Your task to perform on an android device: Show me the alarms in the clock app Image 0: 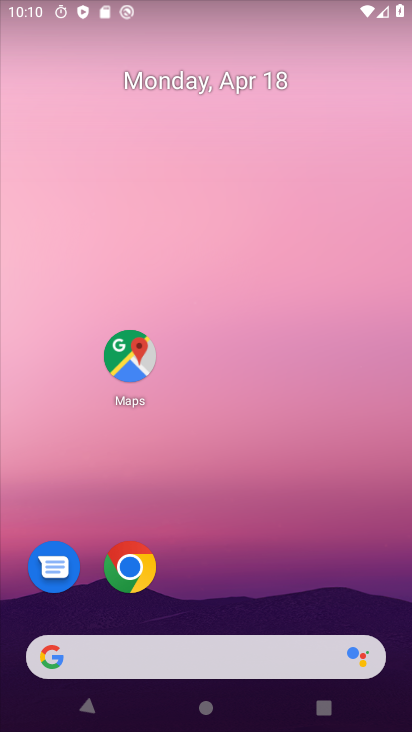
Step 0: drag from (239, 655) to (394, 278)
Your task to perform on an android device: Show me the alarms in the clock app Image 1: 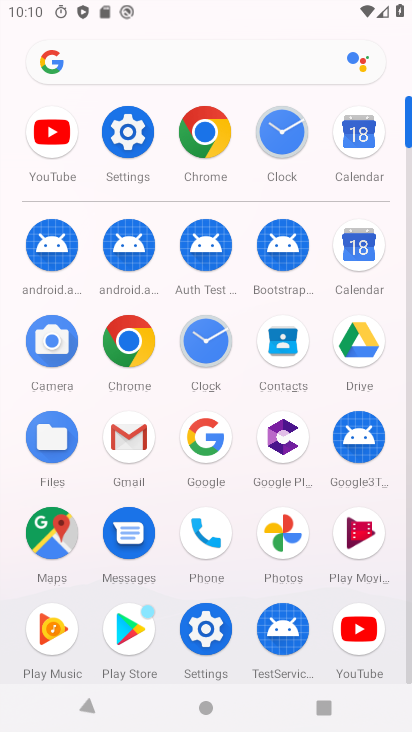
Step 1: click (209, 335)
Your task to perform on an android device: Show me the alarms in the clock app Image 2: 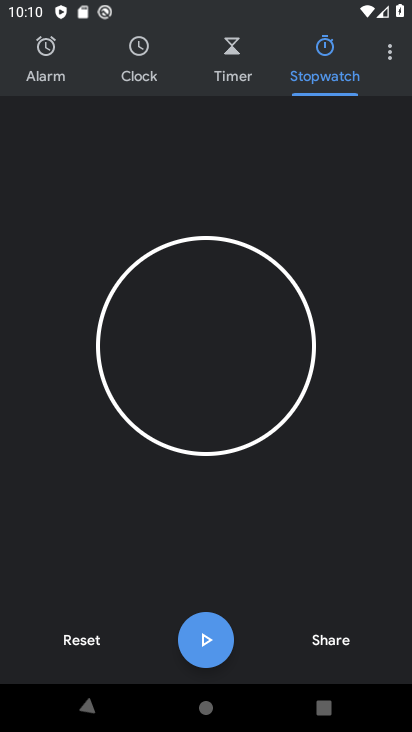
Step 2: click (49, 81)
Your task to perform on an android device: Show me the alarms in the clock app Image 3: 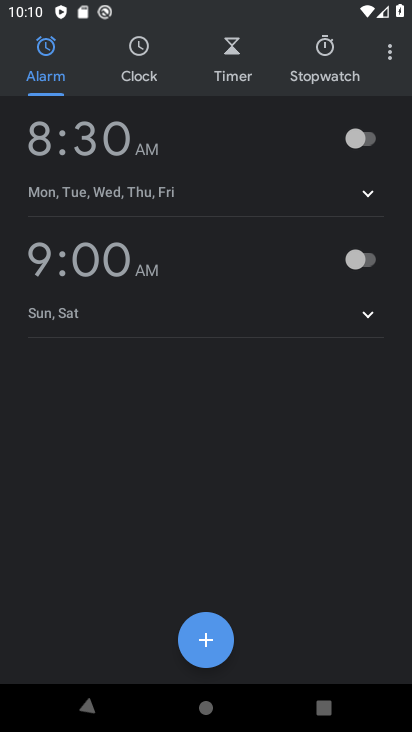
Step 3: task complete